Your task to perform on an android device: Search for seafood restaurants on Google Maps Image 0: 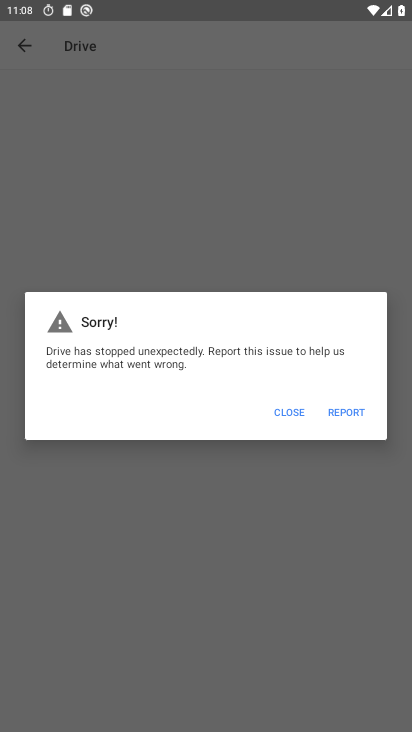
Step 0: press home button
Your task to perform on an android device: Search for seafood restaurants on Google Maps Image 1: 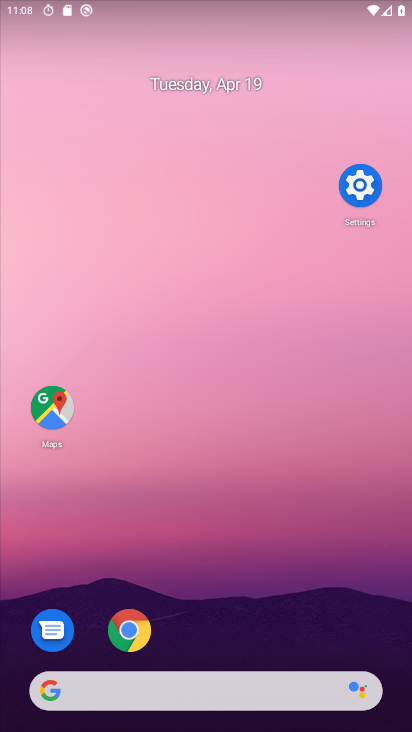
Step 1: drag from (236, 605) to (237, 346)
Your task to perform on an android device: Search for seafood restaurants on Google Maps Image 2: 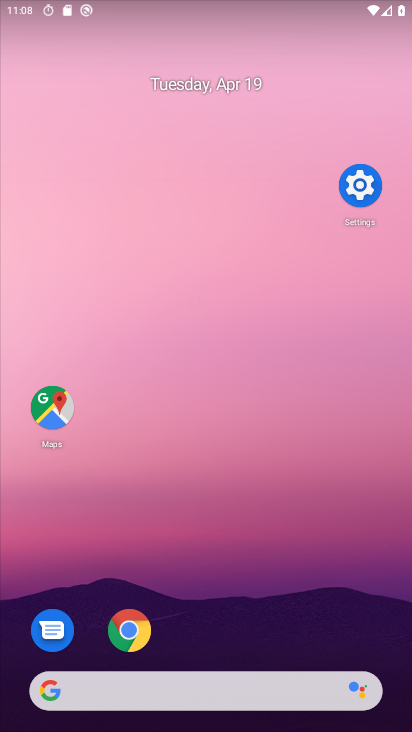
Step 2: click (226, 443)
Your task to perform on an android device: Search for seafood restaurants on Google Maps Image 3: 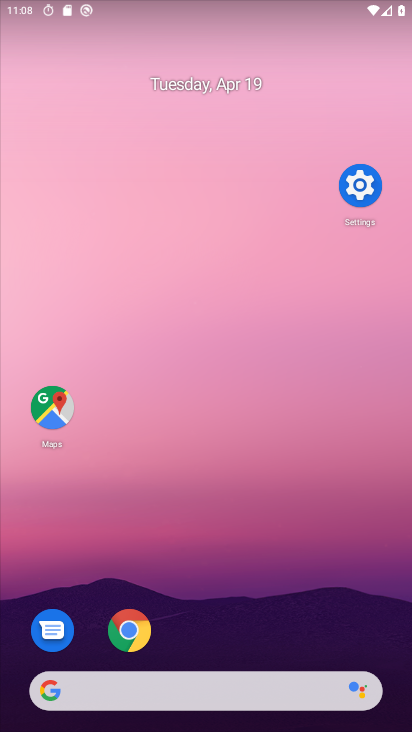
Step 3: drag from (228, 569) to (277, 156)
Your task to perform on an android device: Search for seafood restaurants on Google Maps Image 4: 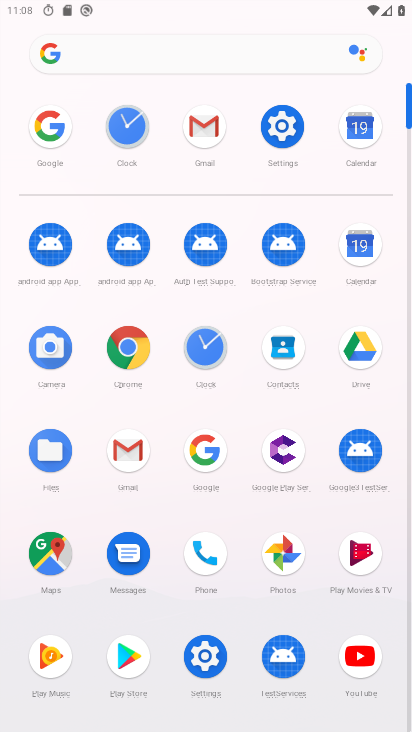
Step 4: click (37, 563)
Your task to perform on an android device: Search for seafood restaurants on Google Maps Image 5: 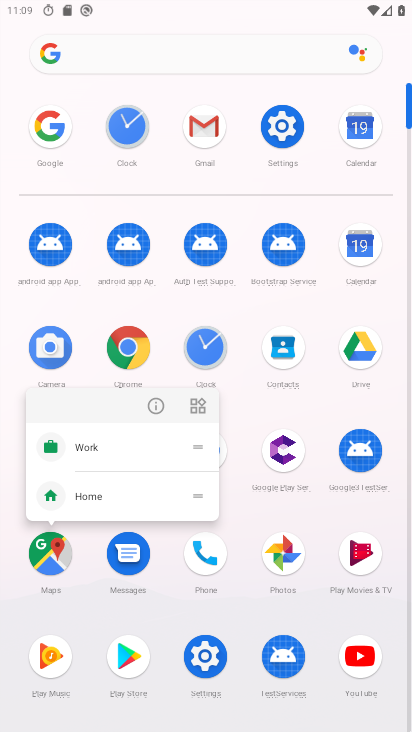
Step 5: click (65, 564)
Your task to perform on an android device: Search for seafood restaurants on Google Maps Image 6: 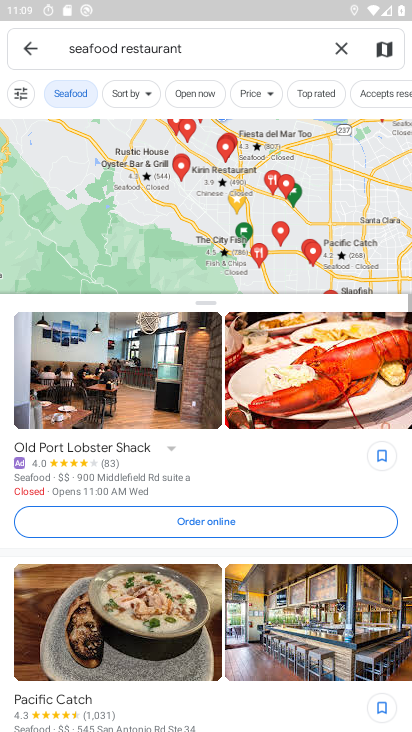
Step 6: task complete